Your task to perform on an android device: read, delete, or share a saved page in the chrome app Image 0: 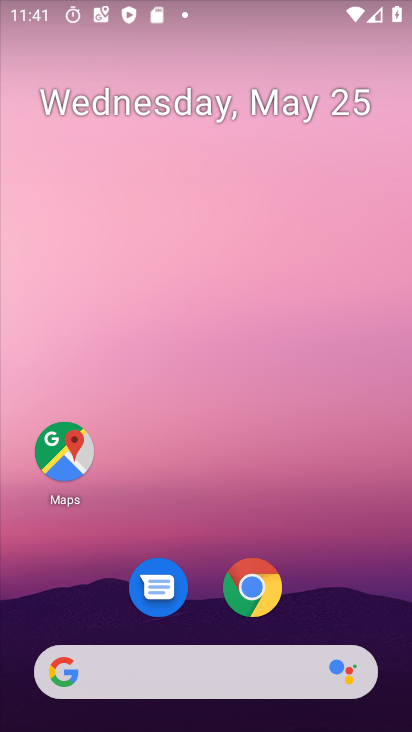
Step 0: drag from (251, 632) to (231, 152)
Your task to perform on an android device: read, delete, or share a saved page in the chrome app Image 1: 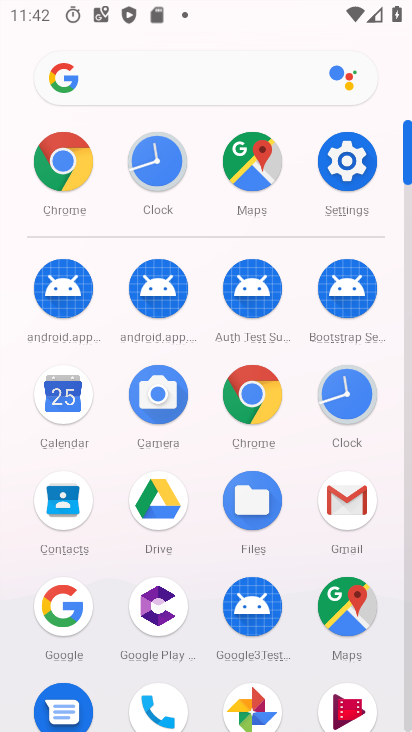
Step 1: click (252, 392)
Your task to perform on an android device: read, delete, or share a saved page in the chrome app Image 2: 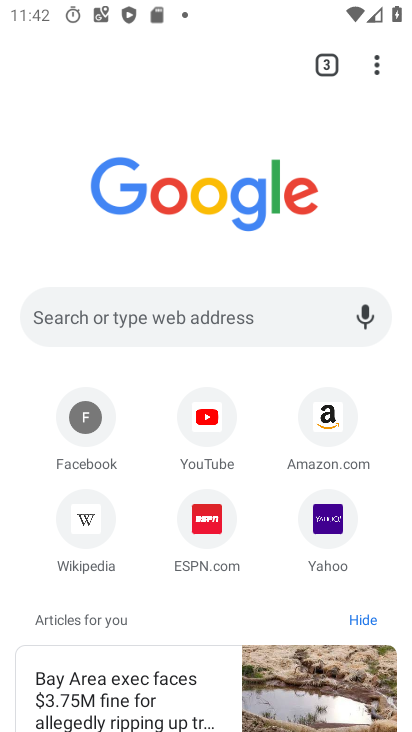
Step 2: click (371, 72)
Your task to perform on an android device: read, delete, or share a saved page in the chrome app Image 3: 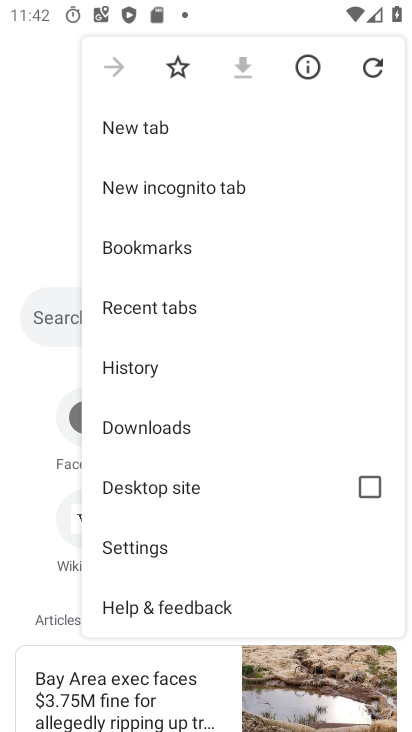
Step 3: click (164, 546)
Your task to perform on an android device: read, delete, or share a saved page in the chrome app Image 4: 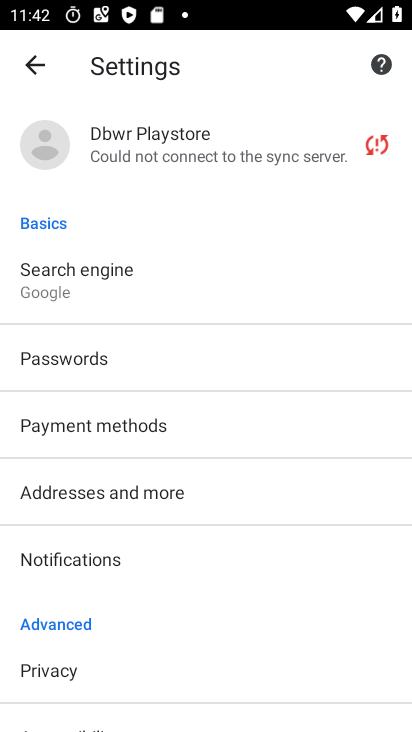
Step 4: click (64, 681)
Your task to perform on an android device: read, delete, or share a saved page in the chrome app Image 5: 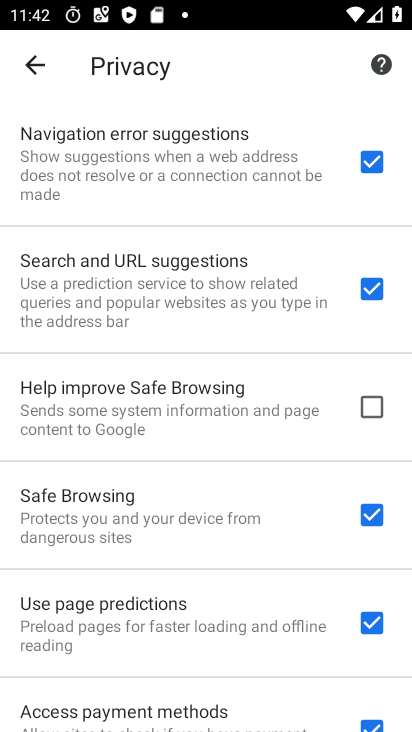
Step 5: drag from (113, 613) to (137, 304)
Your task to perform on an android device: read, delete, or share a saved page in the chrome app Image 6: 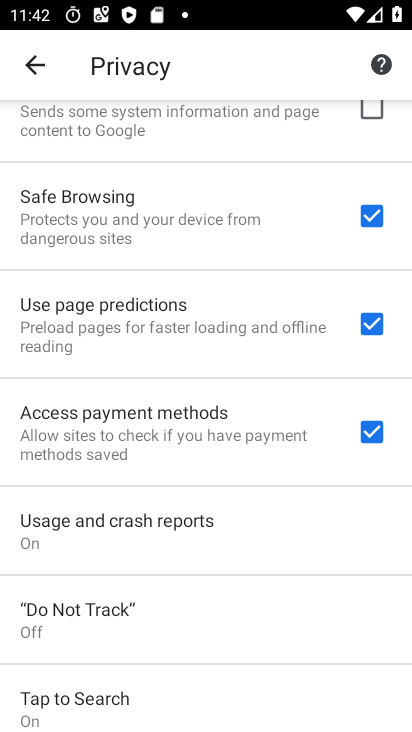
Step 6: drag from (107, 698) to (118, 499)
Your task to perform on an android device: read, delete, or share a saved page in the chrome app Image 7: 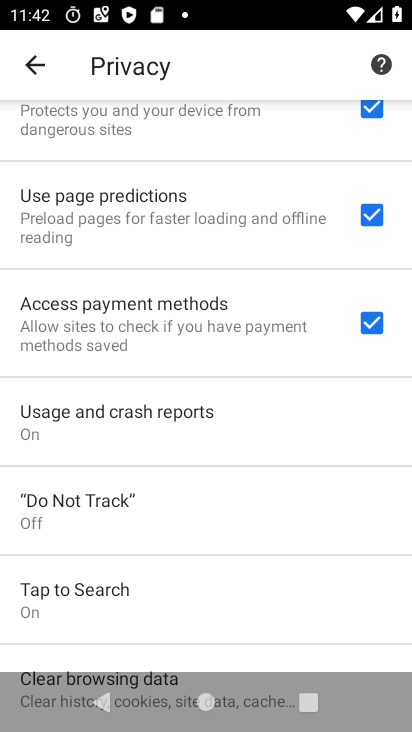
Step 7: click (103, 663)
Your task to perform on an android device: read, delete, or share a saved page in the chrome app Image 8: 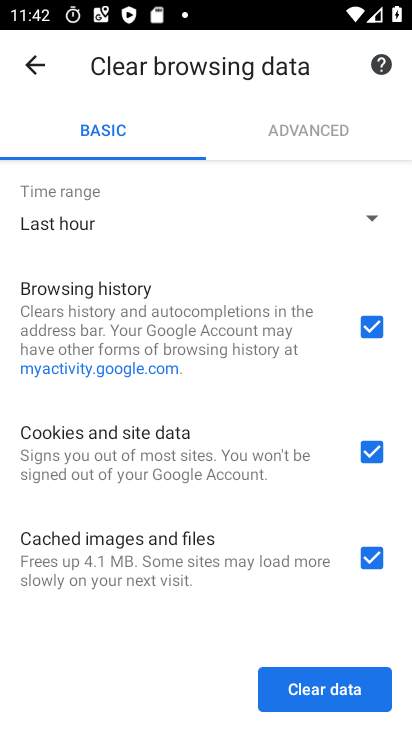
Step 8: click (319, 703)
Your task to perform on an android device: read, delete, or share a saved page in the chrome app Image 9: 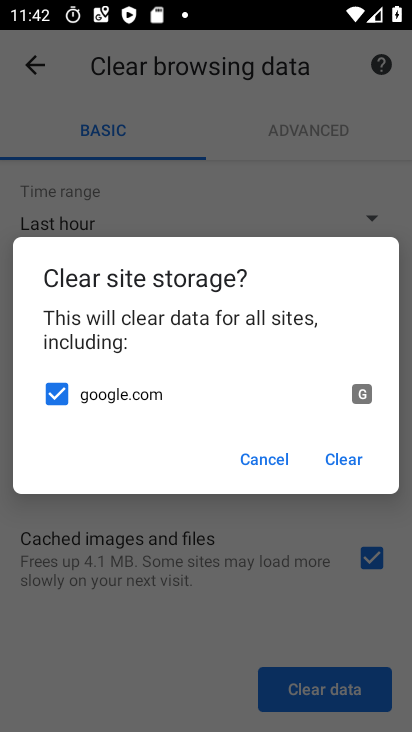
Step 9: task complete